Your task to perform on an android device: Go to internet settings Image 0: 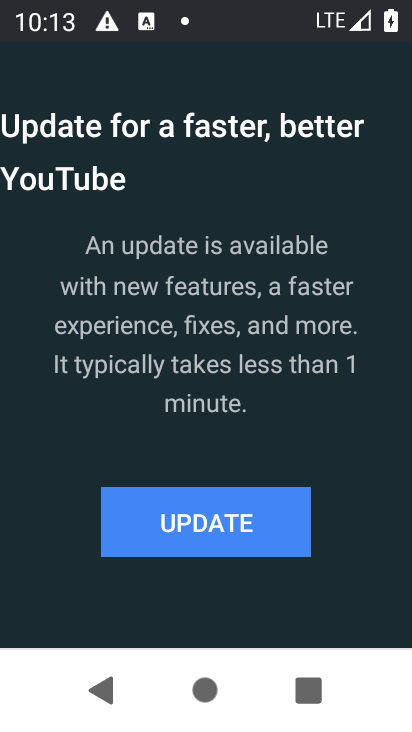
Step 0: press home button
Your task to perform on an android device: Go to internet settings Image 1: 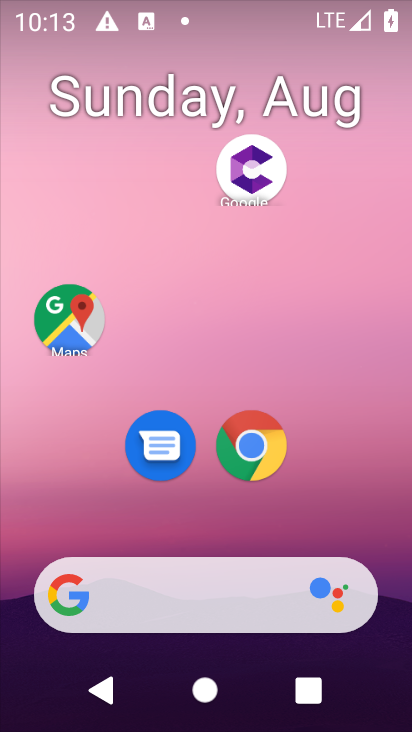
Step 1: drag from (215, 520) to (232, 15)
Your task to perform on an android device: Go to internet settings Image 2: 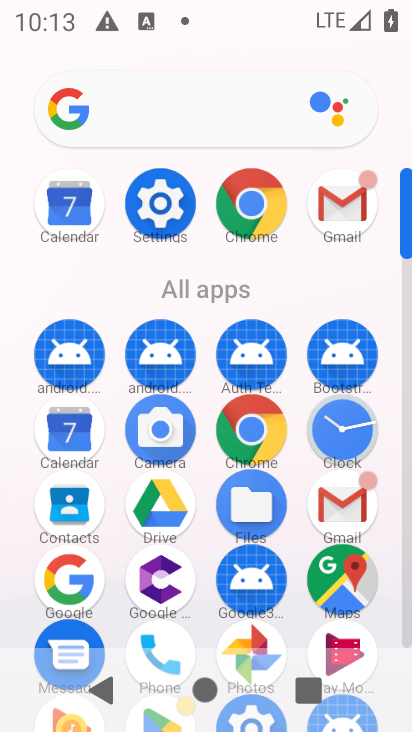
Step 2: click (163, 192)
Your task to perform on an android device: Go to internet settings Image 3: 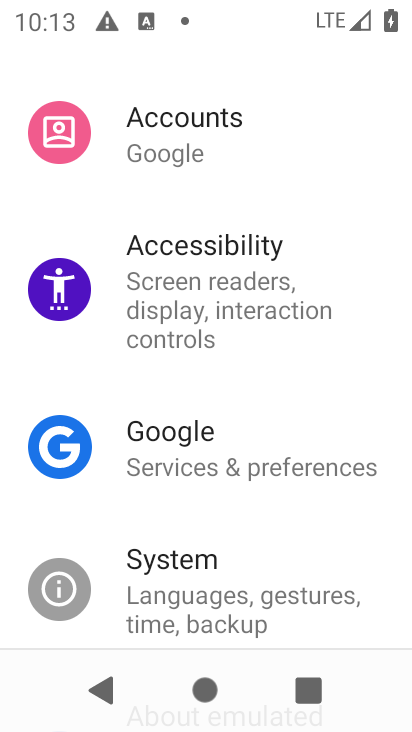
Step 3: drag from (169, 195) to (154, 655)
Your task to perform on an android device: Go to internet settings Image 4: 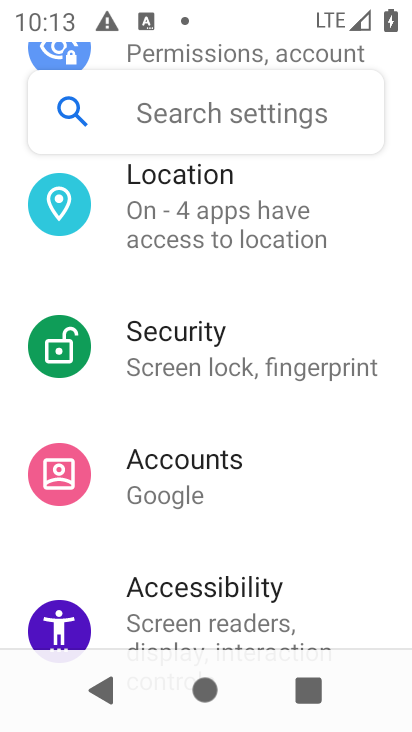
Step 4: drag from (185, 194) to (244, 719)
Your task to perform on an android device: Go to internet settings Image 5: 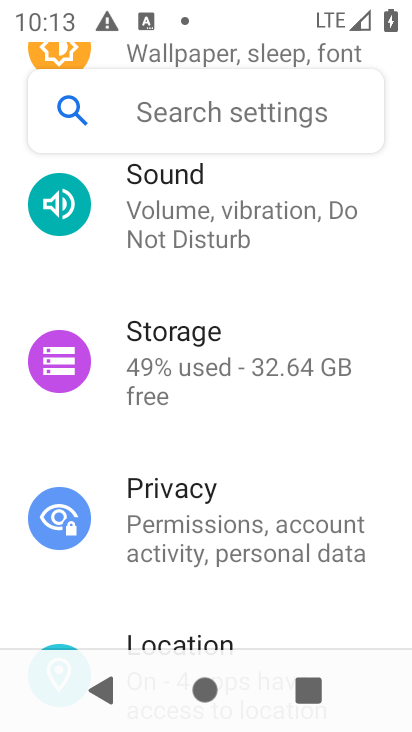
Step 5: drag from (205, 186) to (206, 731)
Your task to perform on an android device: Go to internet settings Image 6: 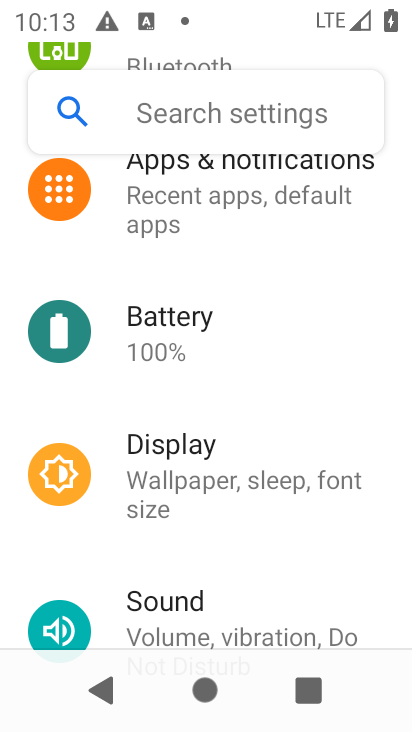
Step 6: drag from (208, 190) to (254, 695)
Your task to perform on an android device: Go to internet settings Image 7: 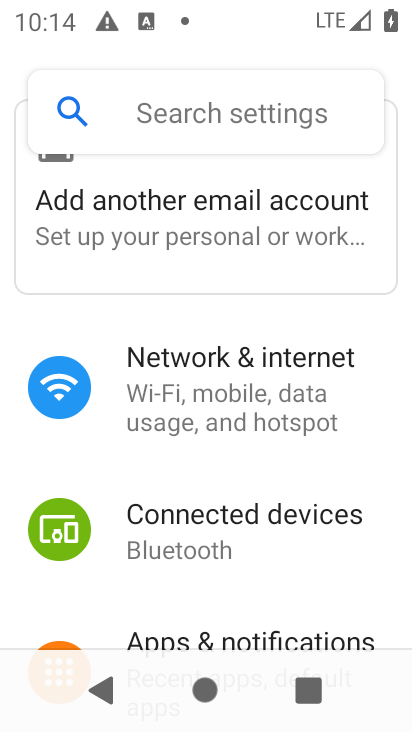
Step 7: click (242, 375)
Your task to perform on an android device: Go to internet settings Image 8: 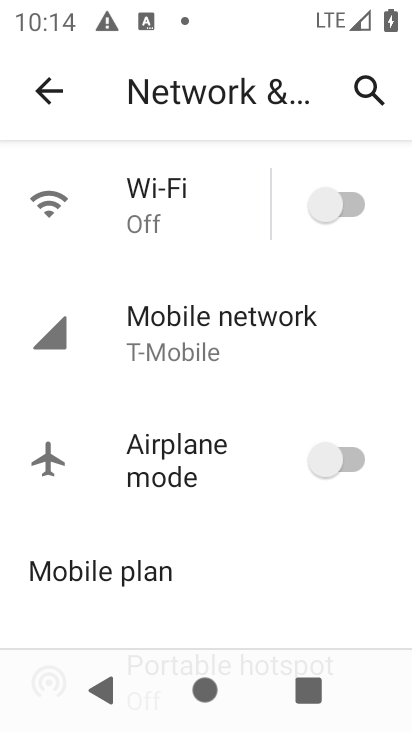
Step 8: drag from (163, 576) to (213, 216)
Your task to perform on an android device: Go to internet settings Image 9: 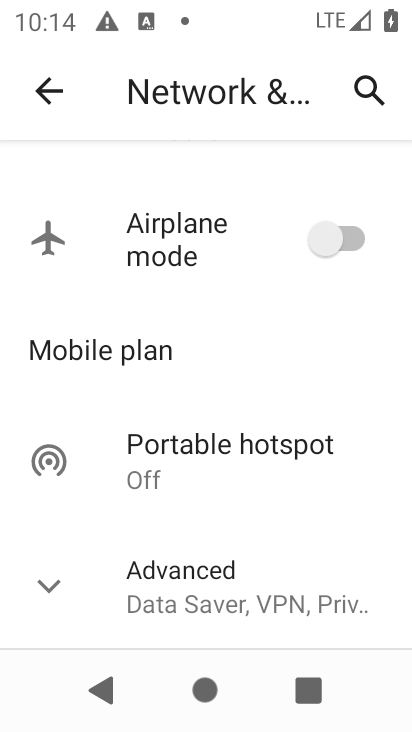
Step 9: click (39, 584)
Your task to perform on an android device: Go to internet settings Image 10: 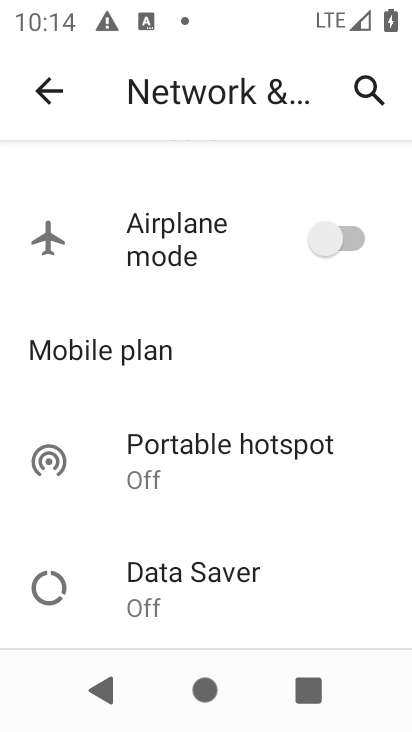
Step 10: task complete